Your task to perform on an android device: check data usage Image 0: 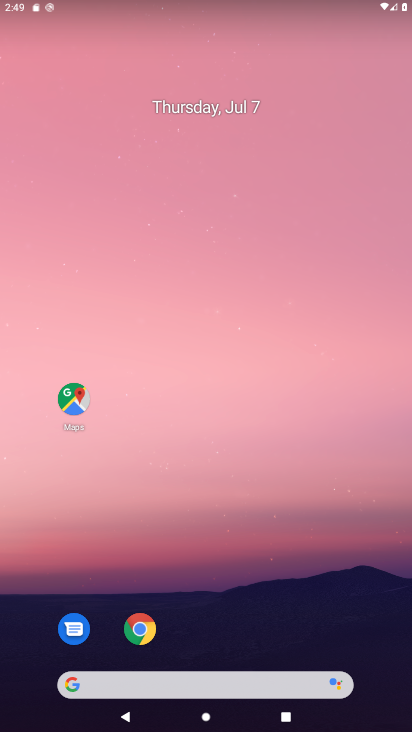
Step 0: drag from (244, 613) to (259, 77)
Your task to perform on an android device: check data usage Image 1: 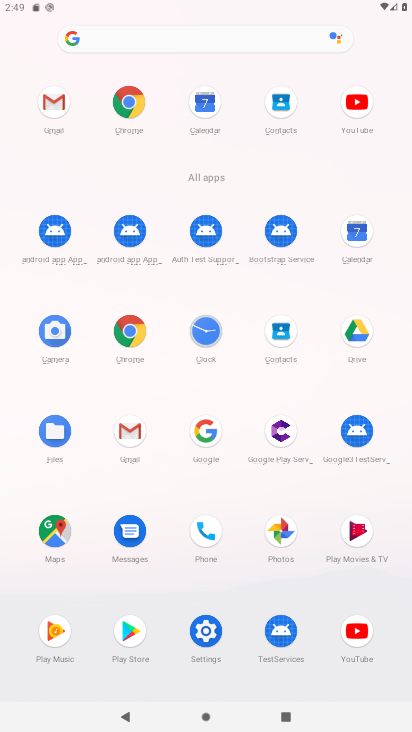
Step 1: drag from (311, 3) to (198, 403)
Your task to perform on an android device: check data usage Image 2: 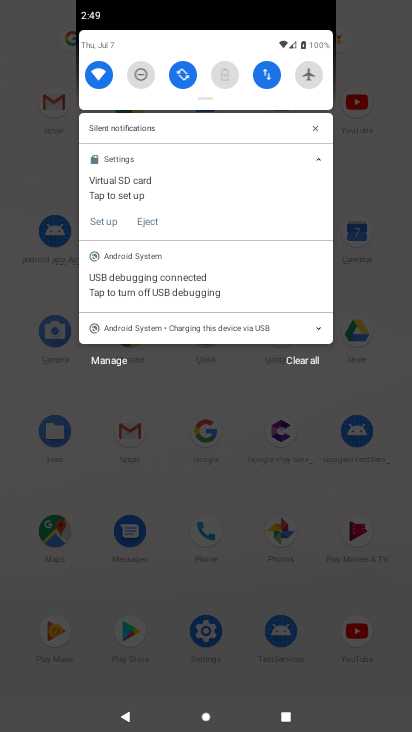
Step 2: click (271, 68)
Your task to perform on an android device: check data usage Image 3: 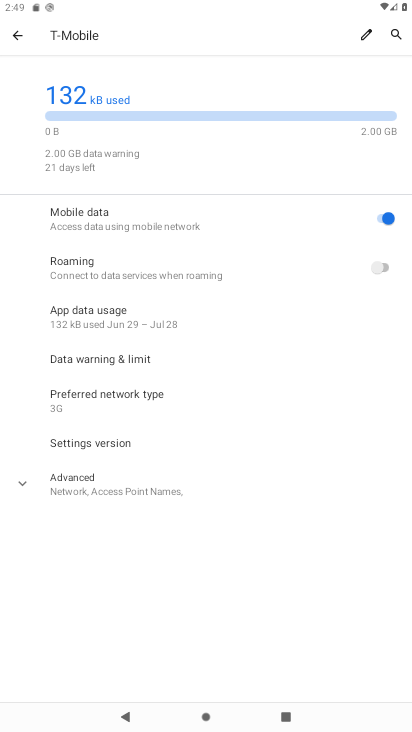
Step 3: task complete